Your task to perform on an android device: Open privacy settings Image 0: 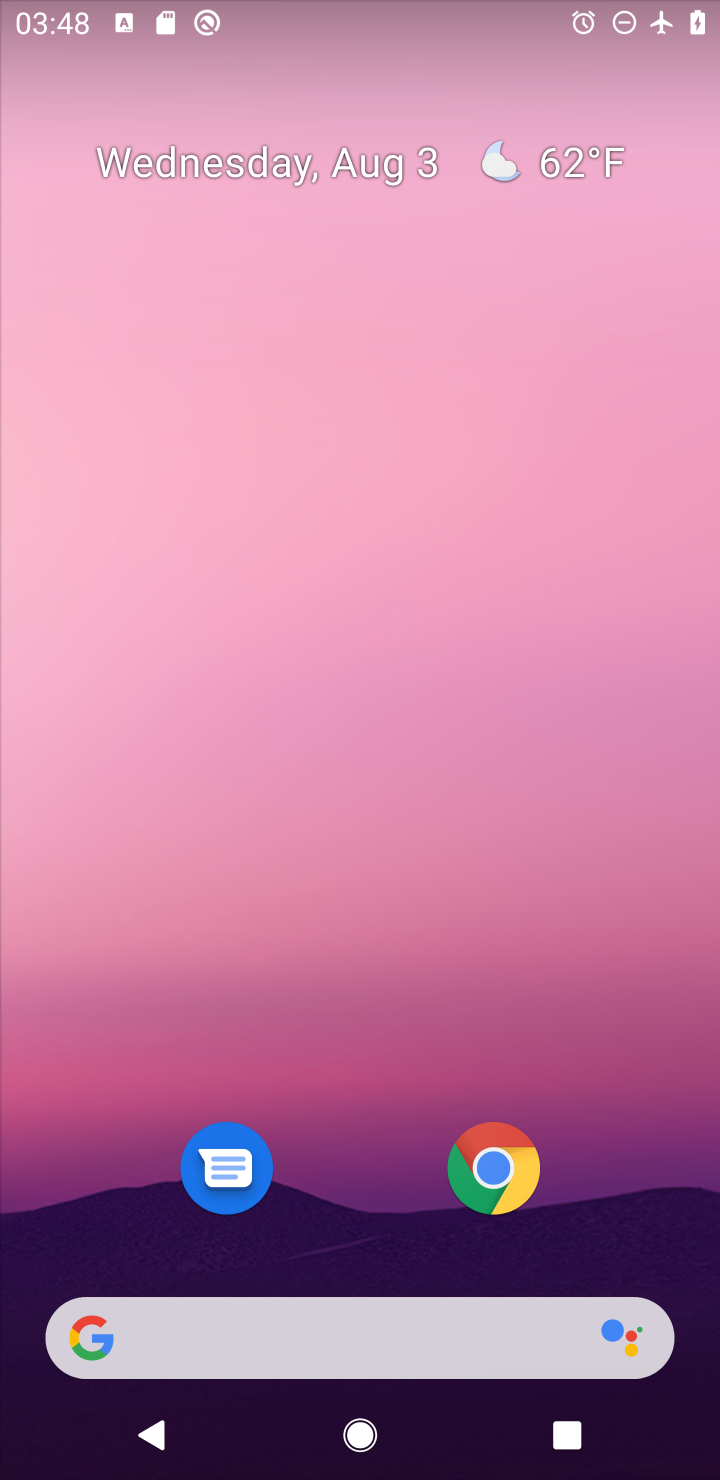
Step 0: drag from (643, 907) to (628, 257)
Your task to perform on an android device: Open privacy settings Image 1: 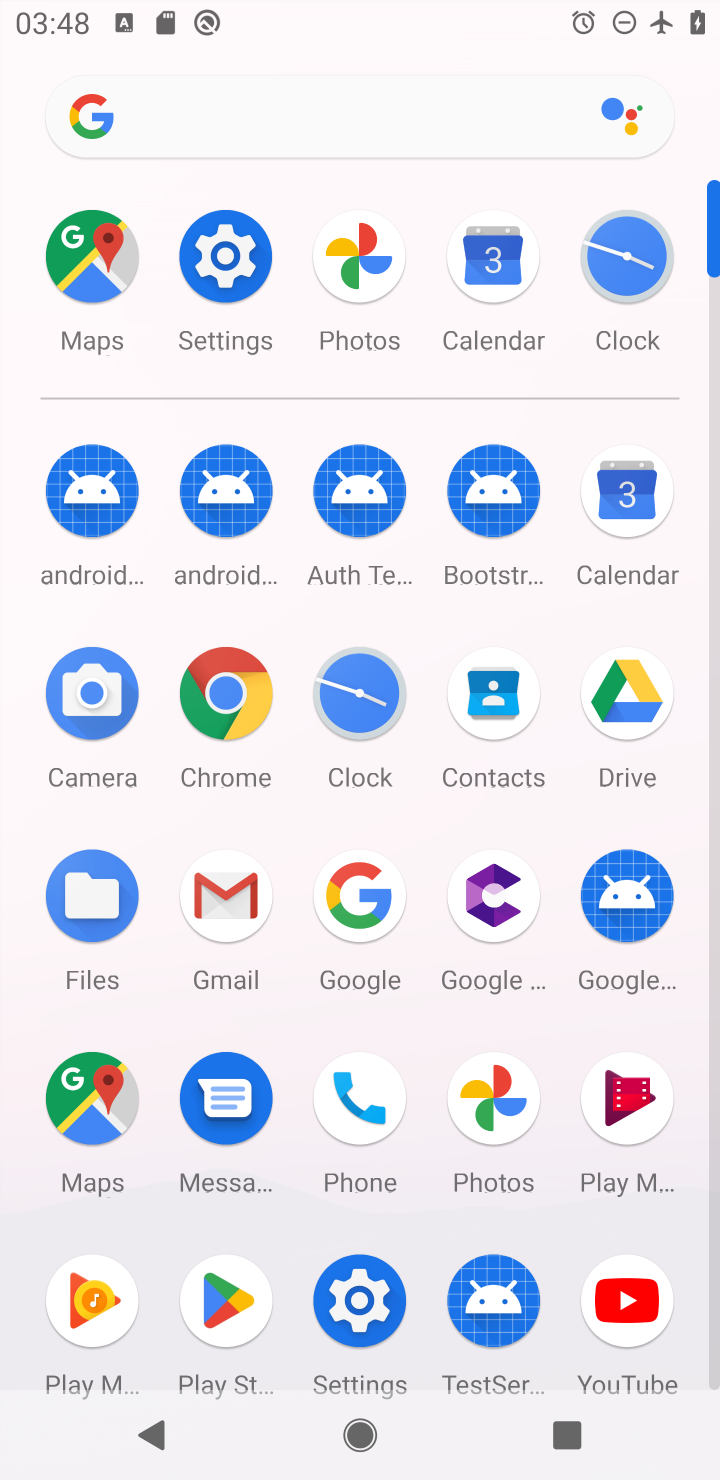
Step 1: click (360, 1304)
Your task to perform on an android device: Open privacy settings Image 2: 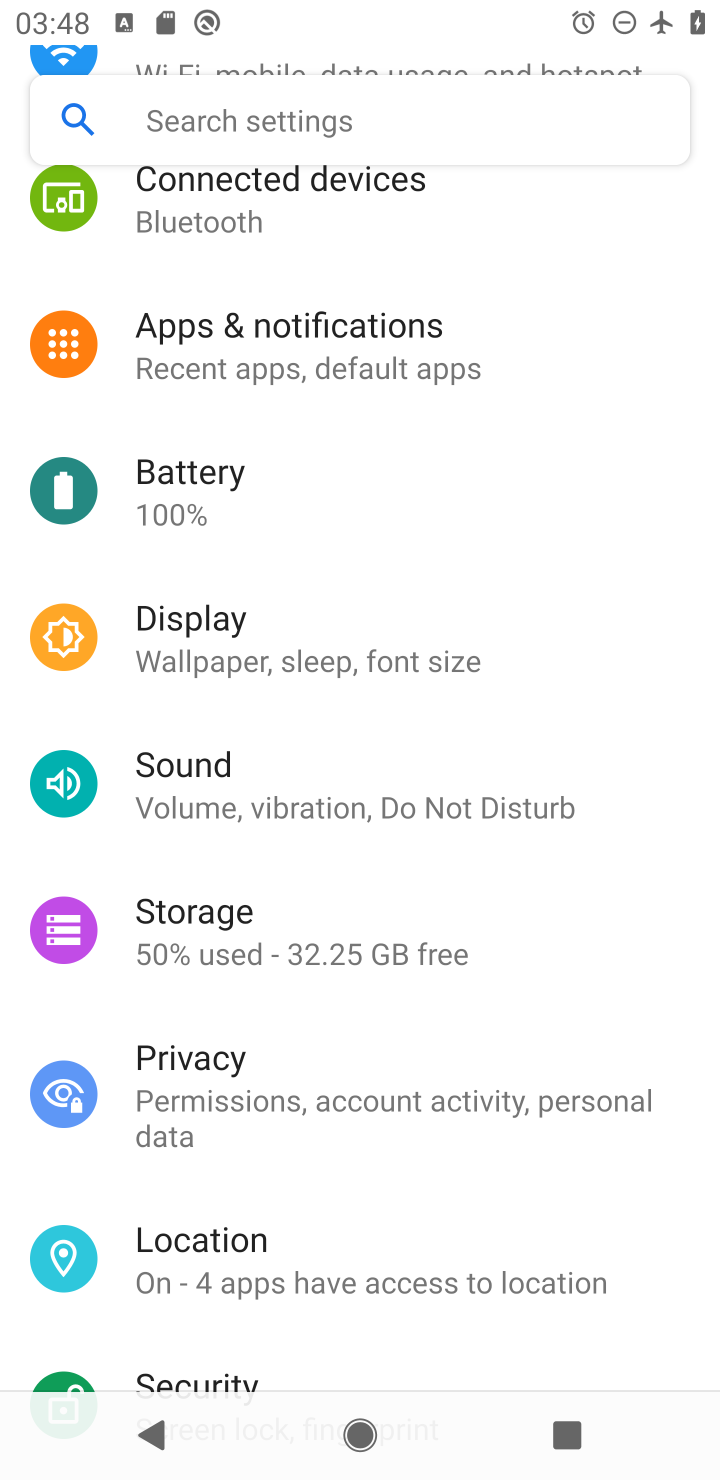
Step 2: click (240, 1087)
Your task to perform on an android device: Open privacy settings Image 3: 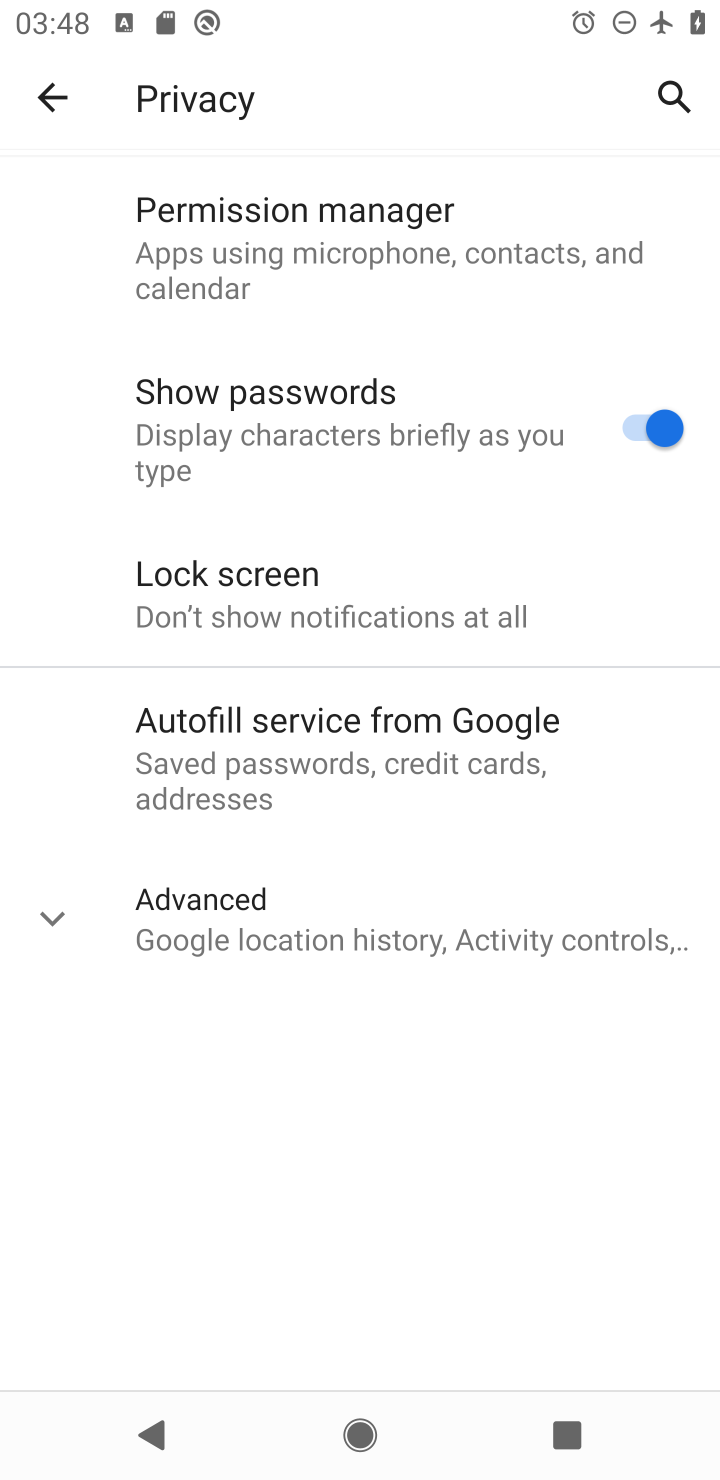
Step 3: click (65, 922)
Your task to perform on an android device: Open privacy settings Image 4: 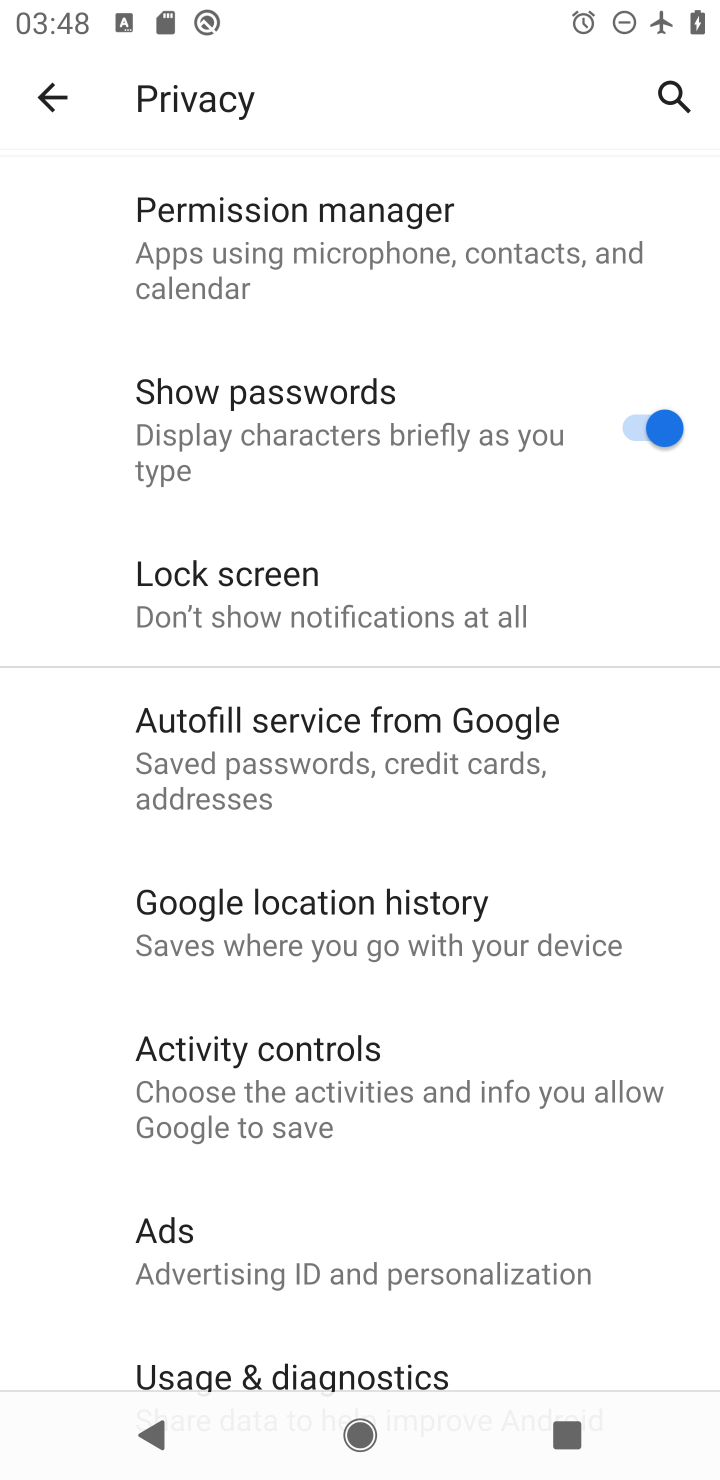
Step 4: task complete